Your task to perform on an android device: Go to Yahoo.com Image 0: 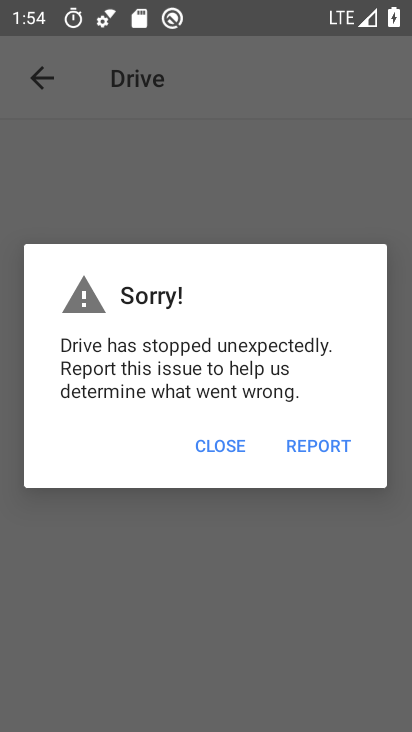
Step 0: press home button
Your task to perform on an android device: Go to Yahoo.com Image 1: 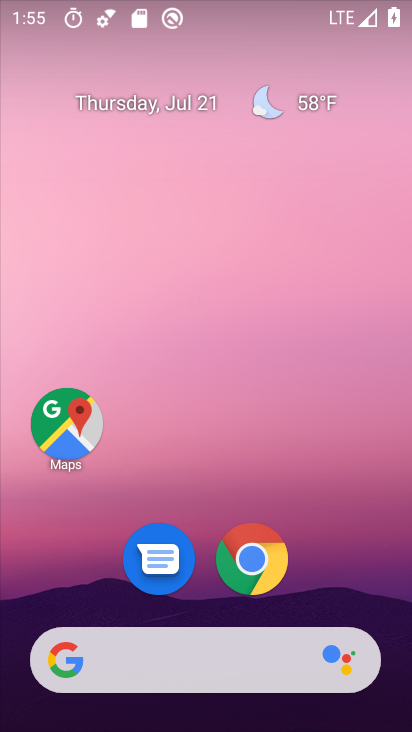
Step 1: drag from (335, 547) to (380, 174)
Your task to perform on an android device: Go to Yahoo.com Image 2: 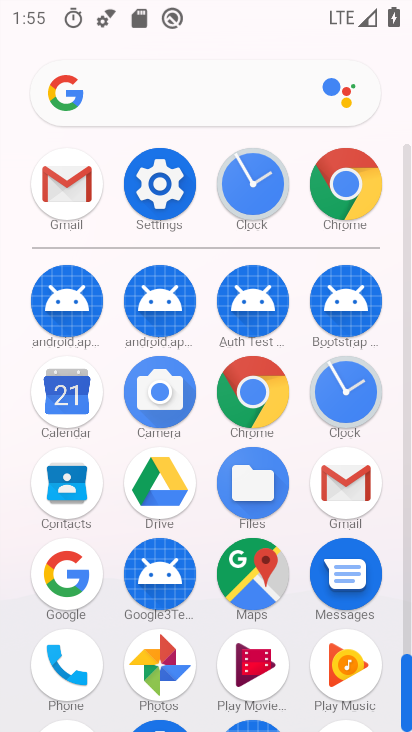
Step 2: click (263, 404)
Your task to perform on an android device: Go to Yahoo.com Image 3: 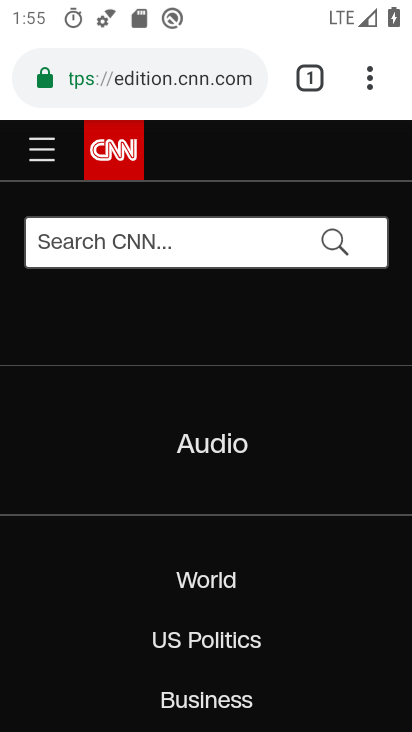
Step 3: click (221, 90)
Your task to perform on an android device: Go to Yahoo.com Image 4: 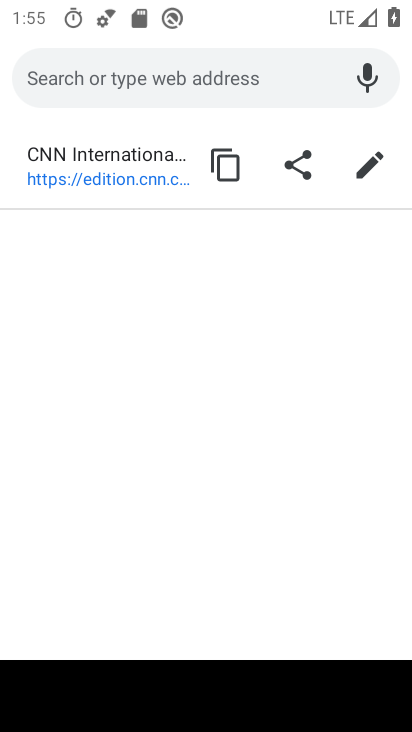
Step 4: type "yahoo.com"
Your task to perform on an android device: Go to Yahoo.com Image 5: 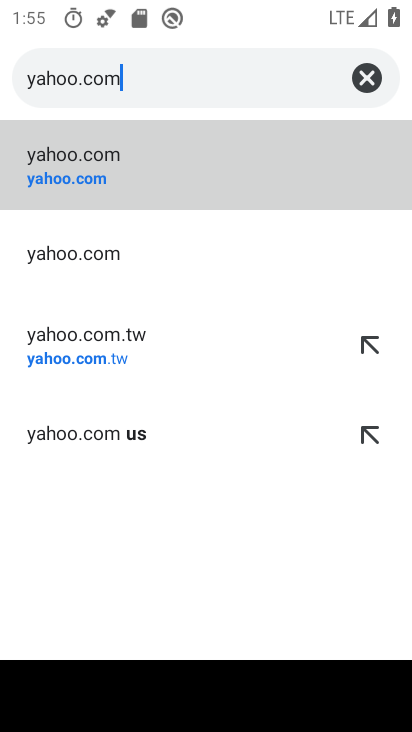
Step 5: click (258, 186)
Your task to perform on an android device: Go to Yahoo.com Image 6: 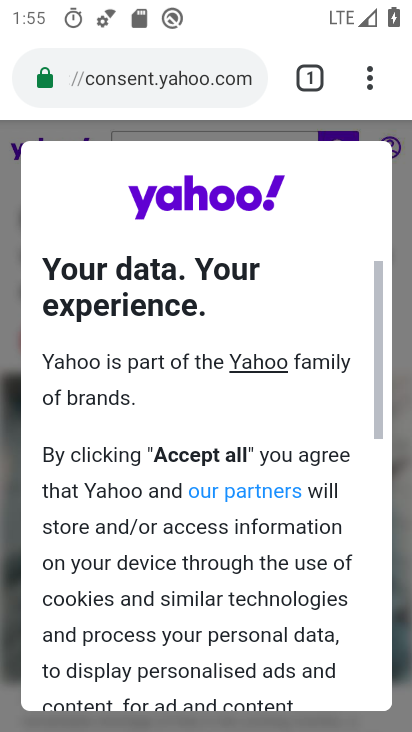
Step 6: task complete